Your task to perform on an android device: Add razer kraken to the cart on ebay.com Image 0: 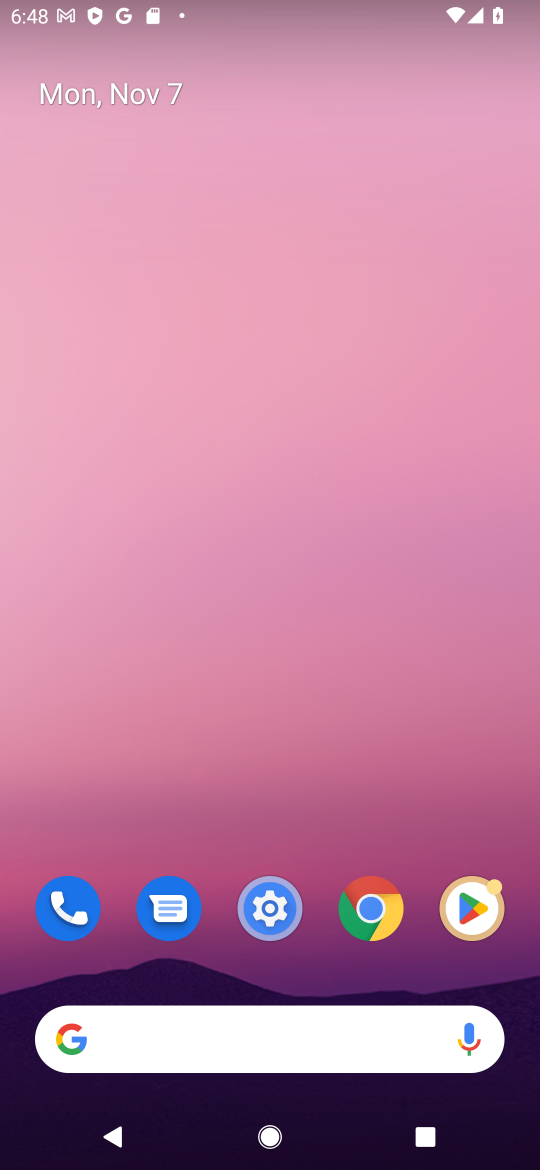
Step 0: click (248, 1061)
Your task to perform on an android device: Add razer kraken to the cart on ebay.com Image 1: 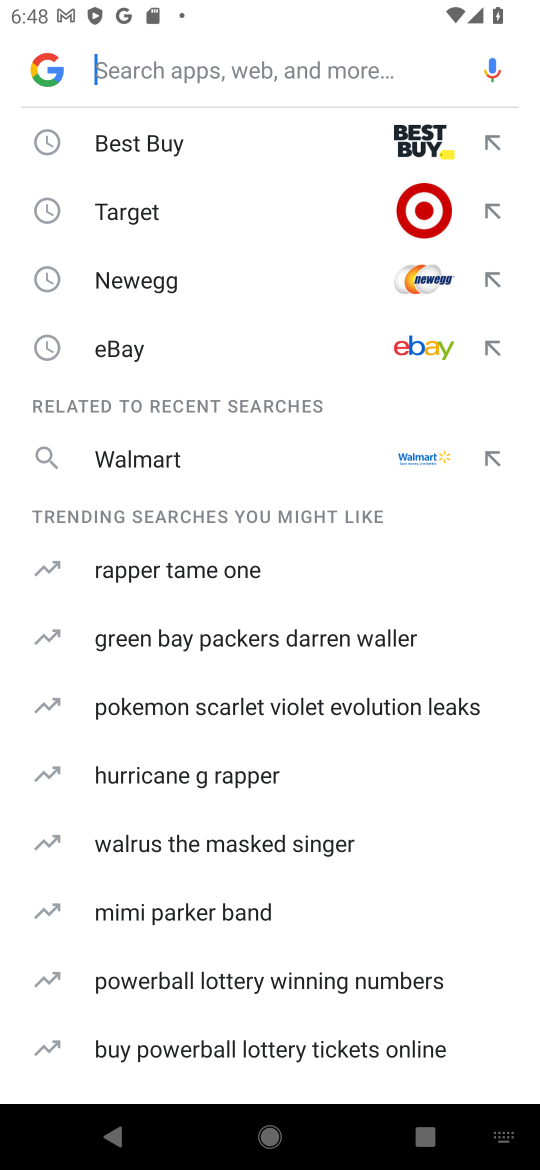
Step 1: click (222, 348)
Your task to perform on an android device: Add razer kraken to the cart on ebay.com Image 2: 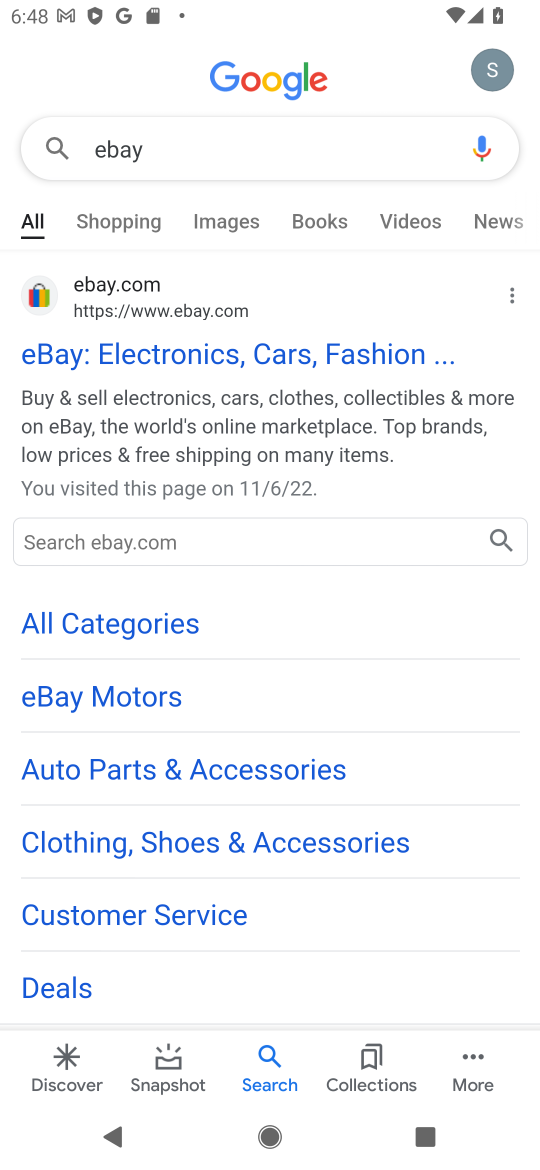
Step 2: click (278, 366)
Your task to perform on an android device: Add razer kraken to the cart on ebay.com Image 3: 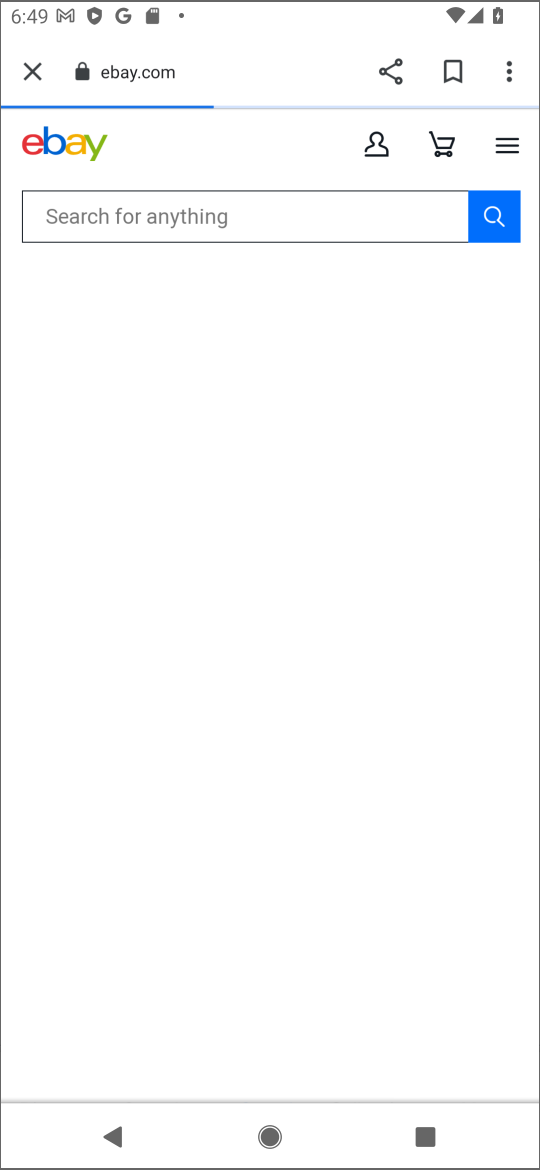
Step 3: task complete